Your task to perform on an android device: Open the web browser Image 0: 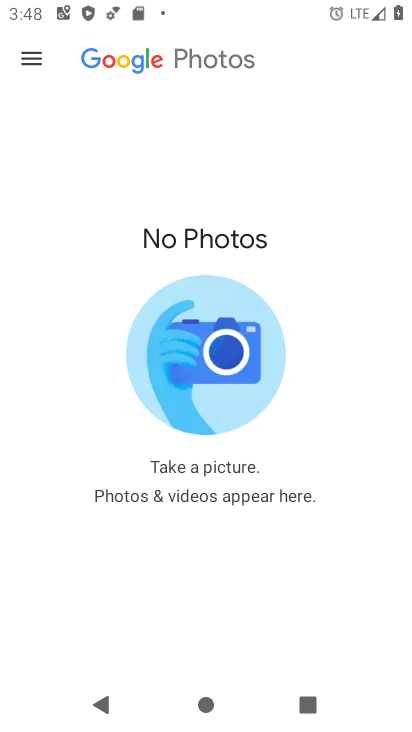
Step 0: press back button
Your task to perform on an android device: Open the web browser Image 1: 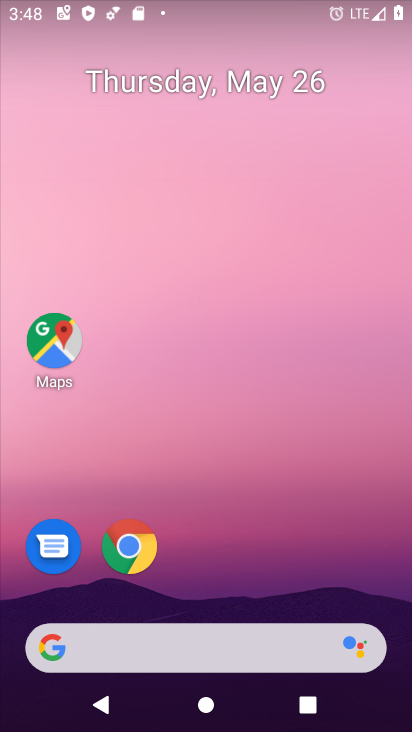
Step 1: click (126, 539)
Your task to perform on an android device: Open the web browser Image 2: 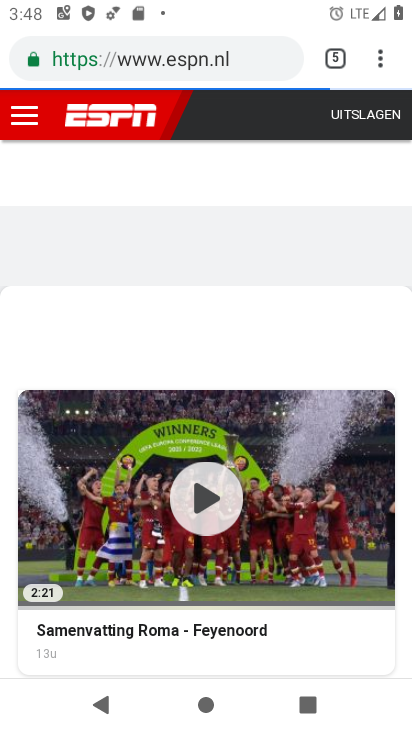
Step 2: task complete